Your task to perform on an android device: Show me productivity apps on the Play Store Image 0: 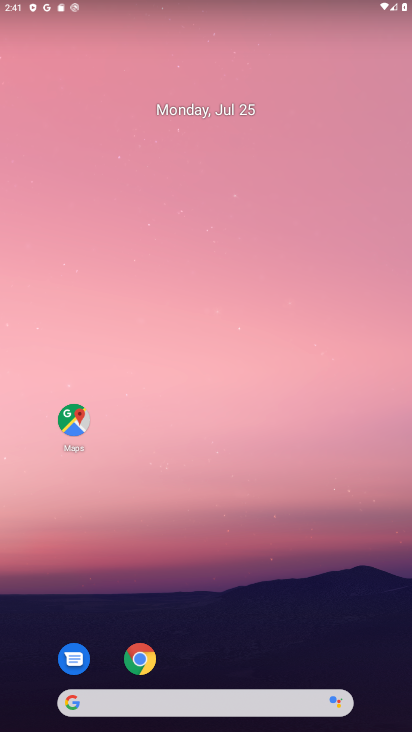
Step 0: drag from (222, 674) to (206, 212)
Your task to perform on an android device: Show me productivity apps on the Play Store Image 1: 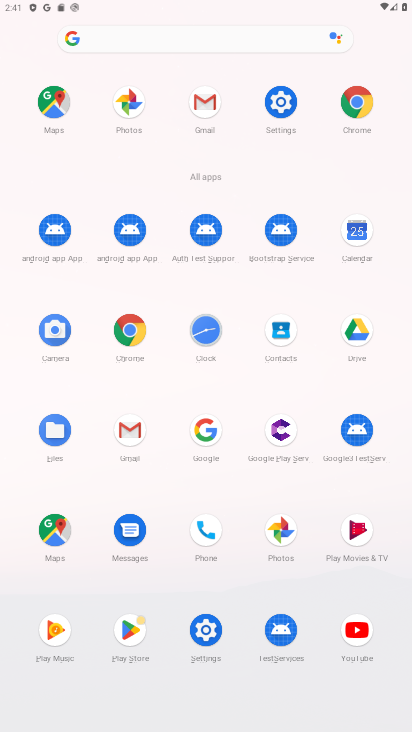
Step 1: click (118, 623)
Your task to perform on an android device: Show me productivity apps on the Play Store Image 2: 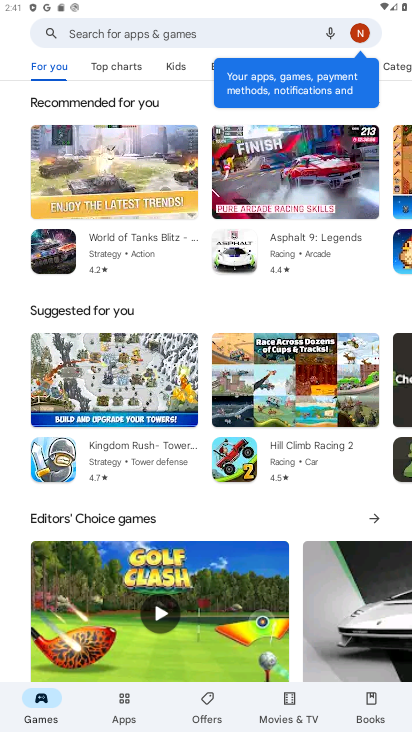
Step 2: click (134, 708)
Your task to perform on an android device: Show me productivity apps on the Play Store Image 3: 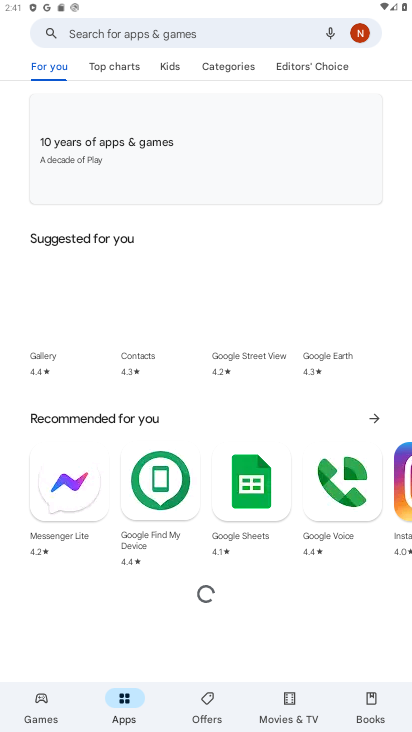
Step 3: click (230, 67)
Your task to perform on an android device: Show me productivity apps on the Play Store Image 4: 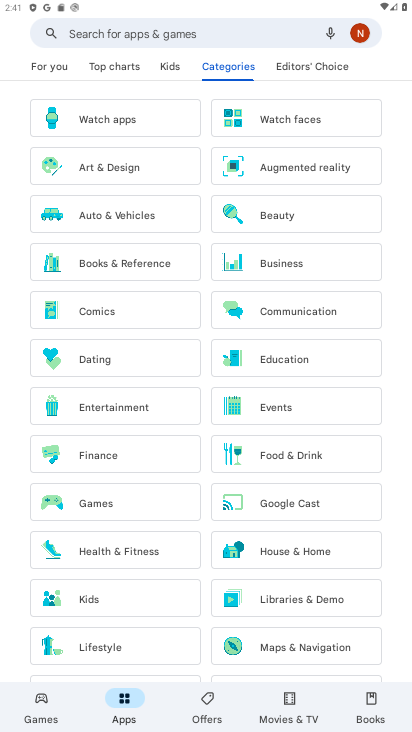
Step 4: drag from (278, 599) to (277, 160)
Your task to perform on an android device: Show me productivity apps on the Play Store Image 5: 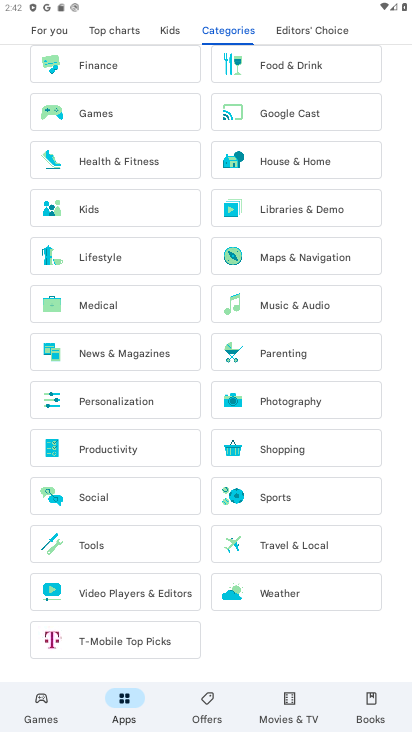
Step 5: click (103, 459)
Your task to perform on an android device: Show me productivity apps on the Play Store Image 6: 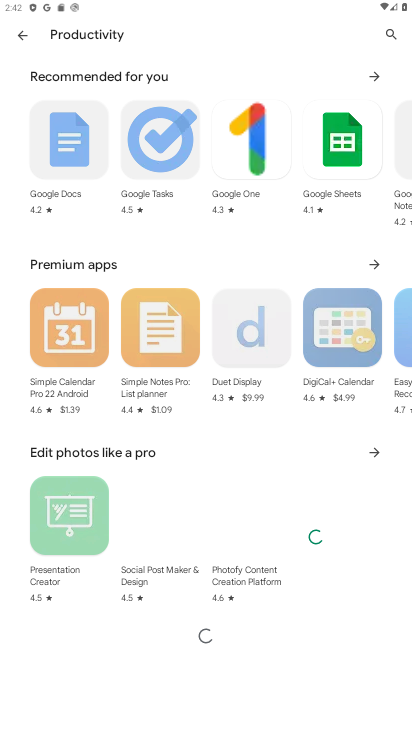
Step 6: task complete